Your task to perform on an android device: turn pop-ups off in chrome Image 0: 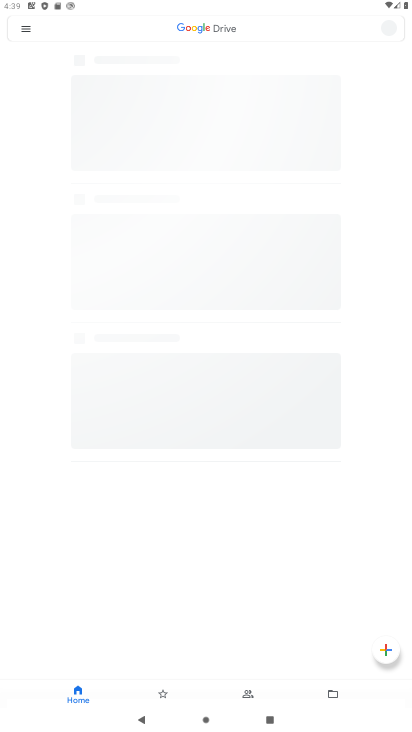
Step 0: drag from (161, 641) to (153, 79)
Your task to perform on an android device: turn pop-ups off in chrome Image 1: 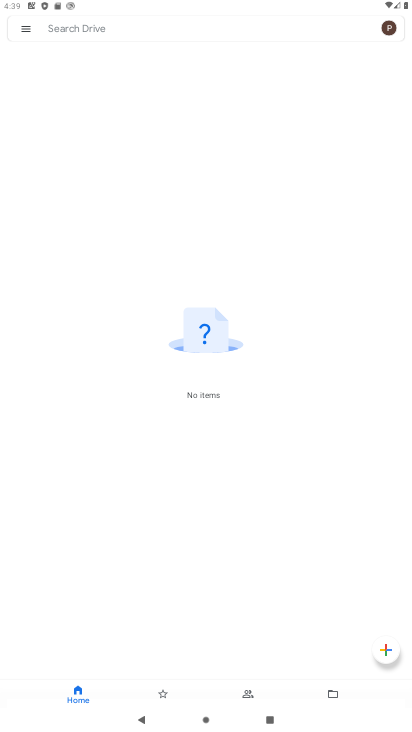
Step 1: press home button
Your task to perform on an android device: turn pop-ups off in chrome Image 2: 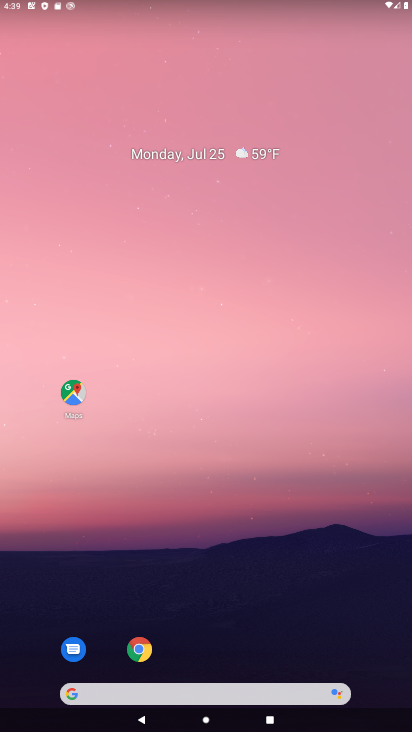
Step 2: drag from (227, 618) to (213, 34)
Your task to perform on an android device: turn pop-ups off in chrome Image 3: 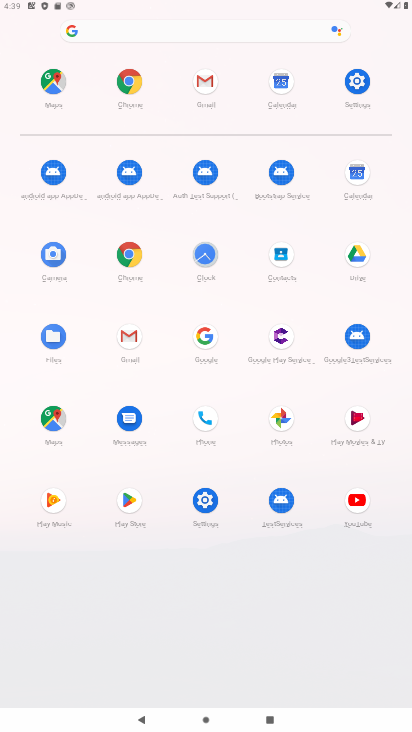
Step 3: click (122, 85)
Your task to perform on an android device: turn pop-ups off in chrome Image 4: 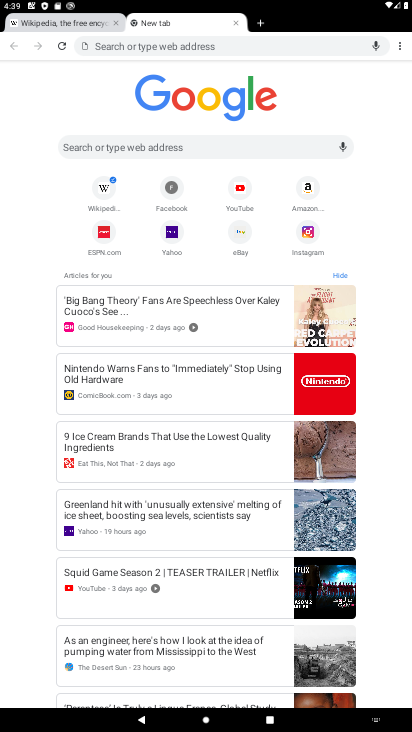
Step 4: drag from (403, 44) to (319, 209)
Your task to perform on an android device: turn pop-ups off in chrome Image 5: 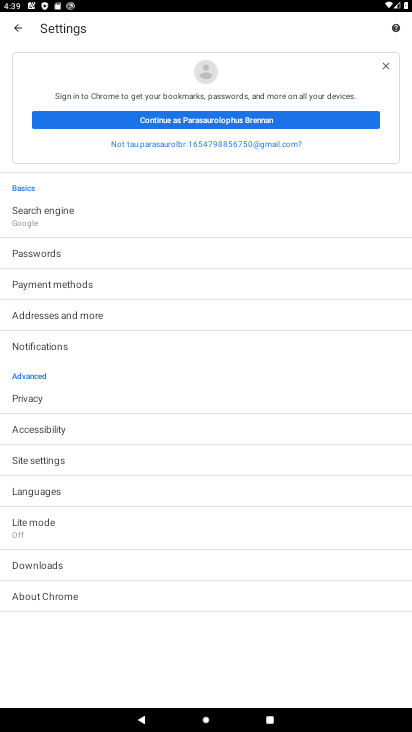
Step 5: click (58, 452)
Your task to perform on an android device: turn pop-ups off in chrome Image 6: 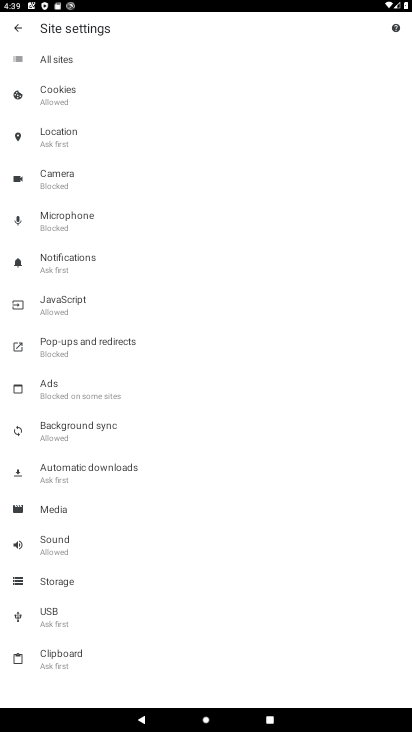
Step 6: click (90, 346)
Your task to perform on an android device: turn pop-ups off in chrome Image 7: 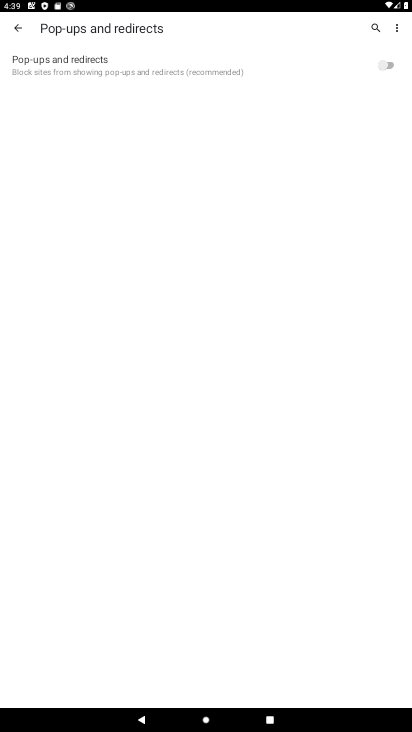
Step 7: task complete